Your task to perform on an android device: show emergency info Image 0: 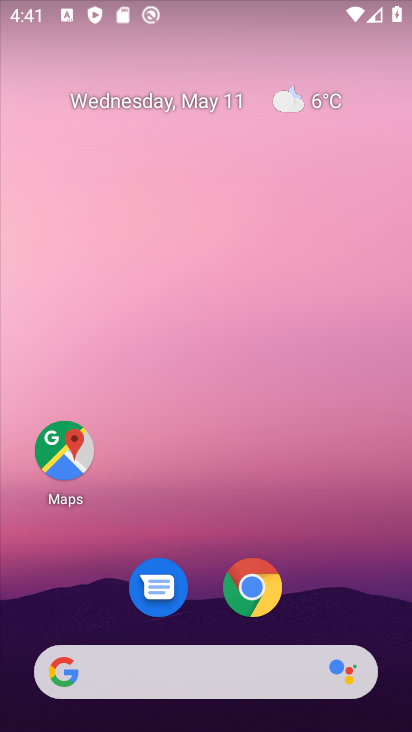
Step 0: drag from (313, 557) to (289, 425)
Your task to perform on an android device: show emergency info Image 1: 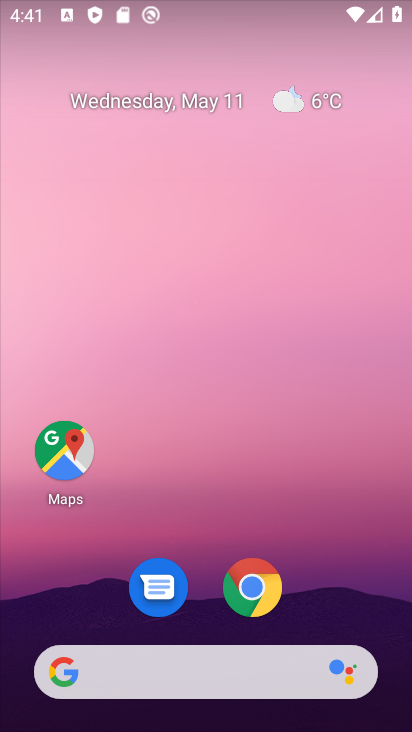
Step 1: task complete